Your task to perform on an android device: Open wifi settings Image 0: 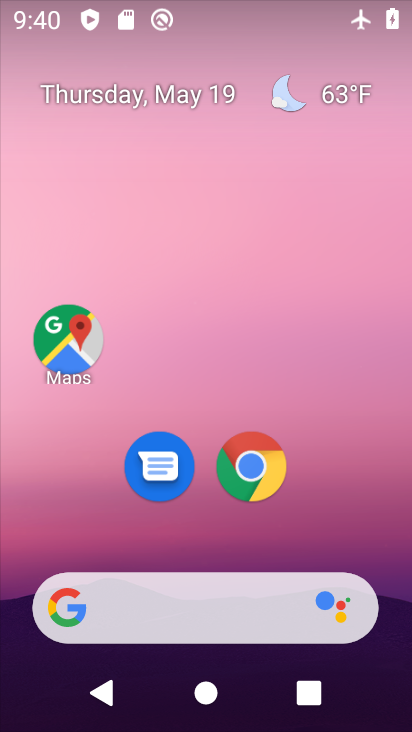
Step 0: drag from (394, 617) to (291, 40)
Your task to perform on an android device: Open wifi settings Image 1: 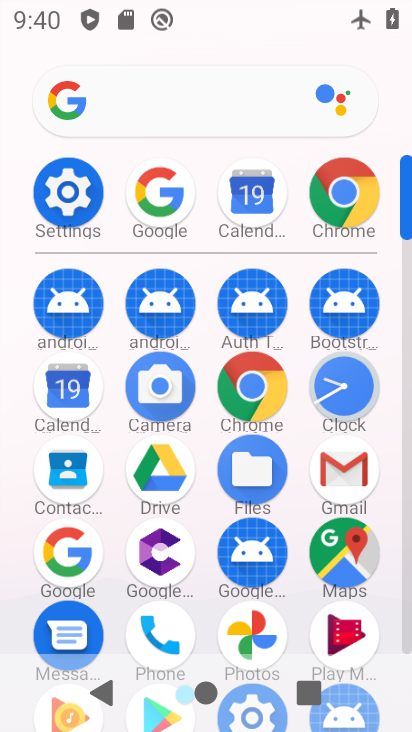
Step 1: click (86, 199)
Your task to perform on an android device: Open wifi settings Image 2: 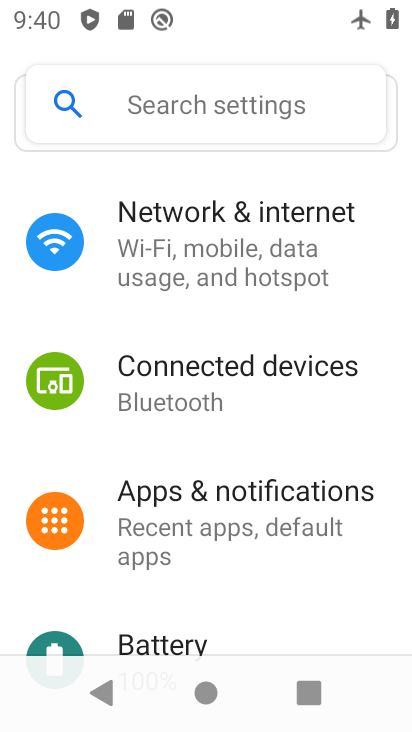
Step 2: click (245, 263)
Your task to perform on an android device: Open wifi settings Image 3: 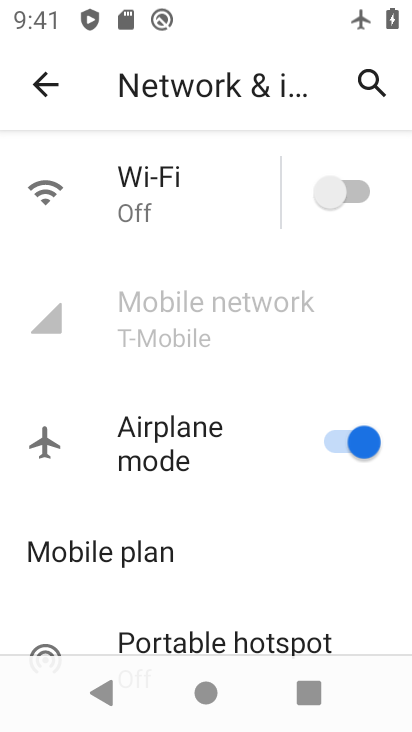
Step 3: click (194, 211)
Your task to perform on an android device: Open wifi settings Image 4: 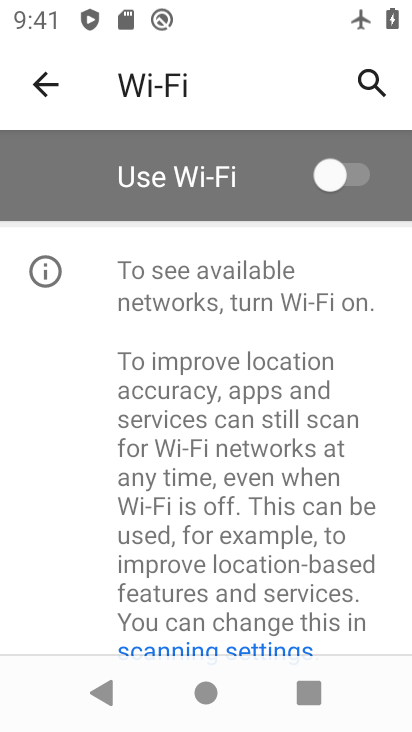
Step 4: task complete